Your task to perform on an android device: See recent photos Image 0: 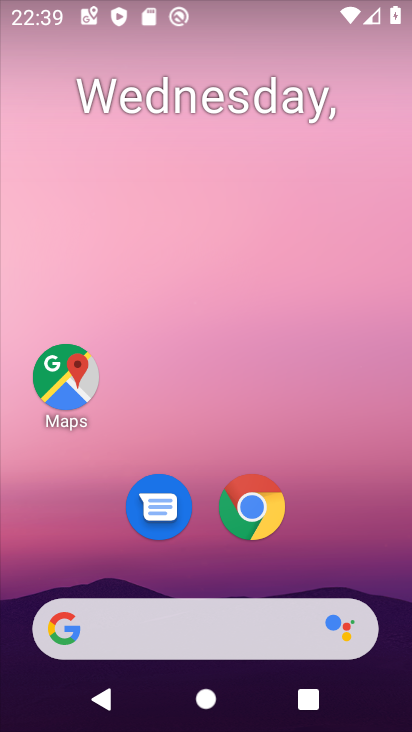
Step 0: drag from (321, 483) to (327, 321)
Your task to perform on an android device: See recent photos Image 1: 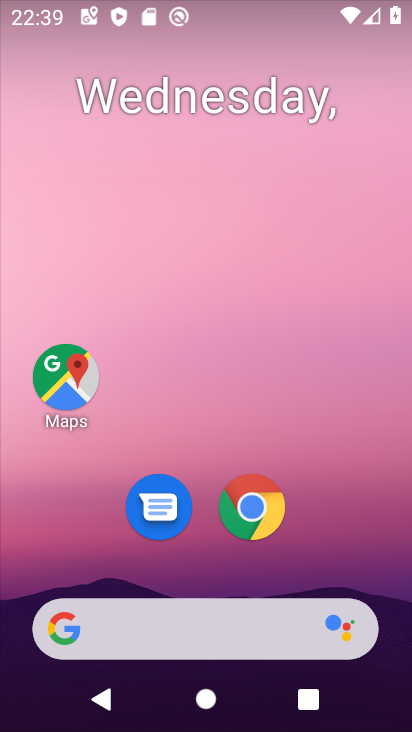
Step 1: drag from (279, 427) to (259, 223)
Your task to perform on an android device: See recent photos Image 2: 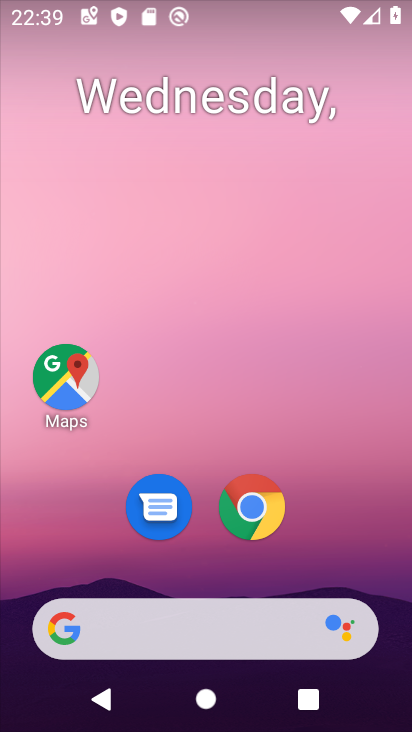
Step 2: drag from (290, 540) to (251, 251)
Your task to perform on an android device: See recent photos Image 3: 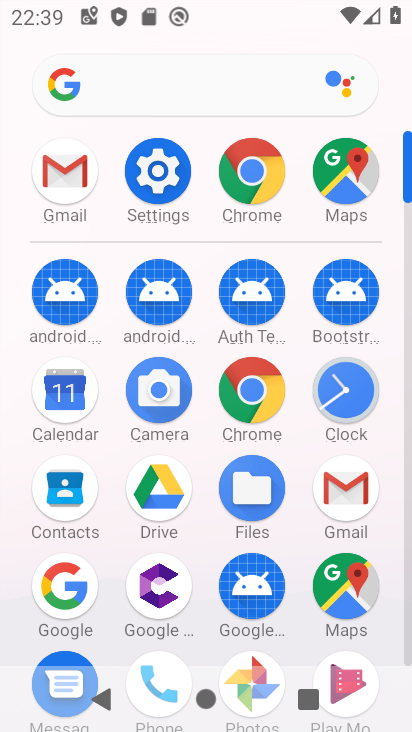
Step 3: drag from (301, 557) to (332, 317)
Your task to perform on an android device: See recent photos Image 4: 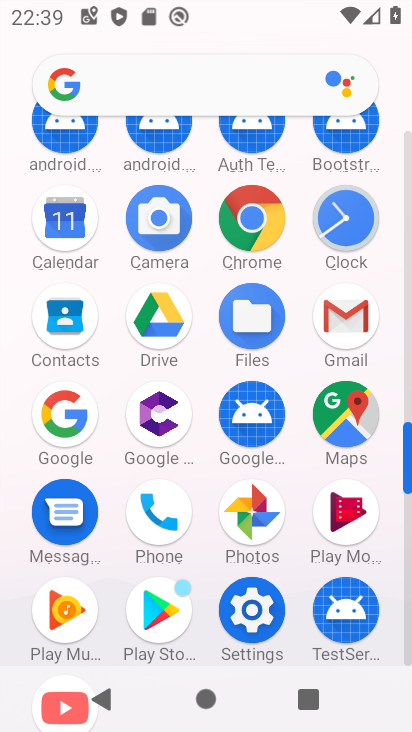
Step 4: click (242, 501)
Your task to perform on an android device: See recent photos Image 5: 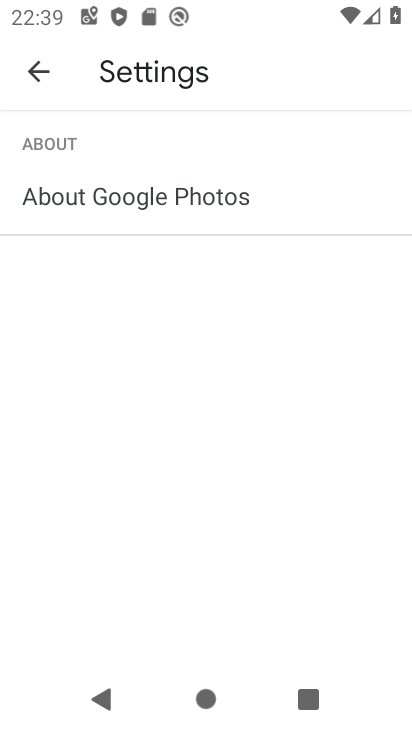
Step 5: click (29, 78)
Your task to perform on an android device: See recent photos Image 6: 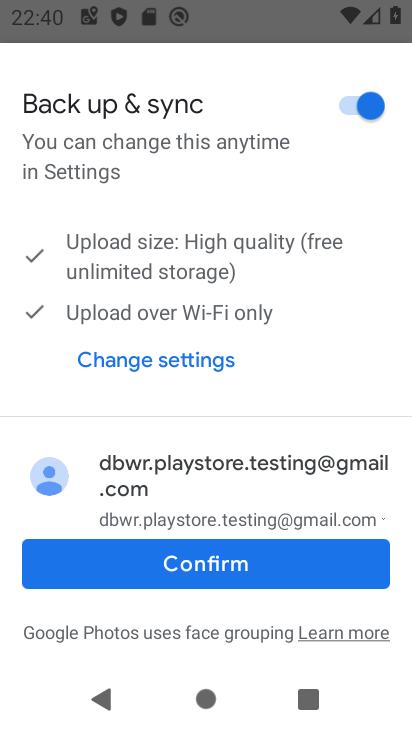
Step 6: click (149, 547)
Your task to perform on an android device: See recent photos Image 7: 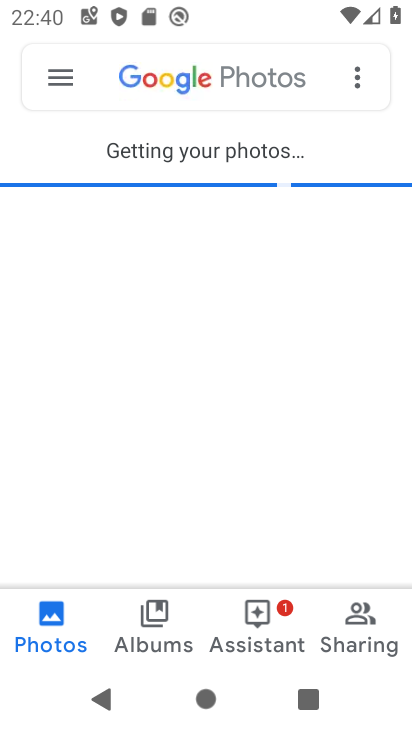
Step 7: click (148, 629)
Your task to perform on an android device: See recent photos Image 8: 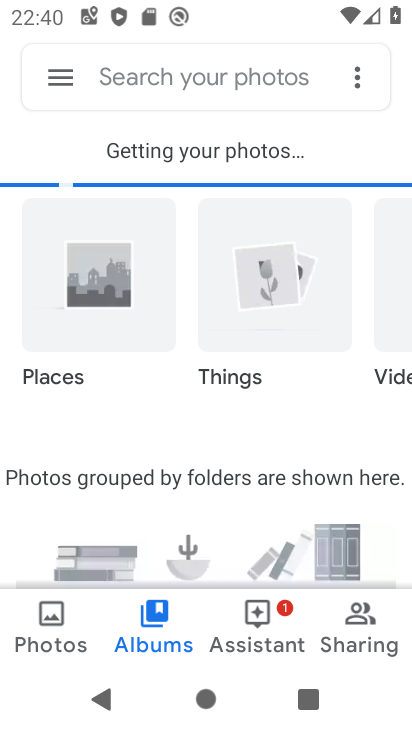
Step 8: click (270, 621)
Your task to perform on an android device: See recent photos Image 9: 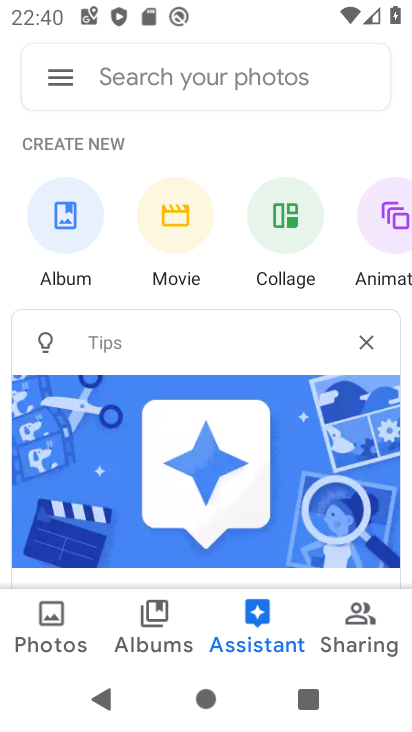
Step 9: click (52, 602)
Your task to perform on an android device: See recent photos Image 10: 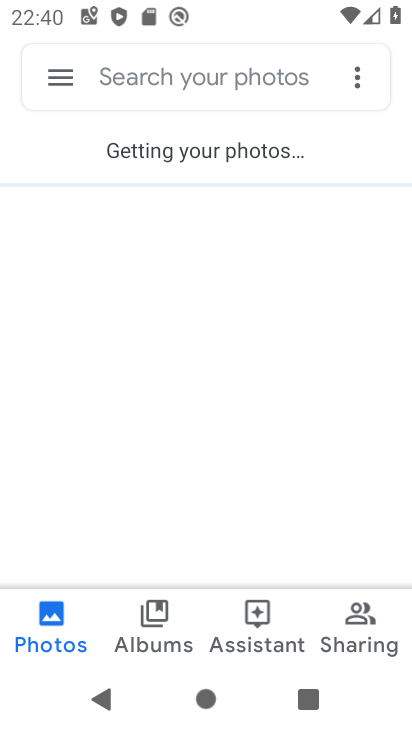
Step 10: click (139, 618)
Your task to perform on an android device: See recent photos Image 11: 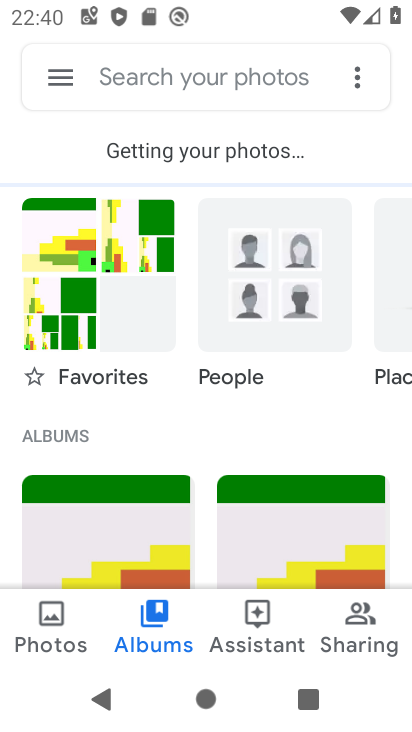
Step 11: task complete